Your task to perform on an android device: Open my contact list Image 0: 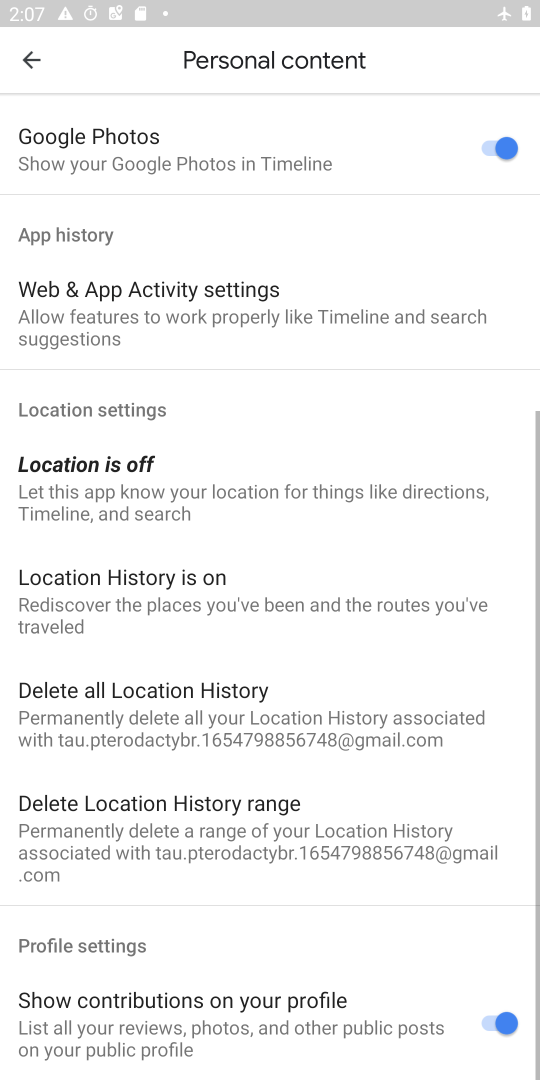
Step 0: press home button
Your task to perform on an android device: Open my contact list Image 1: 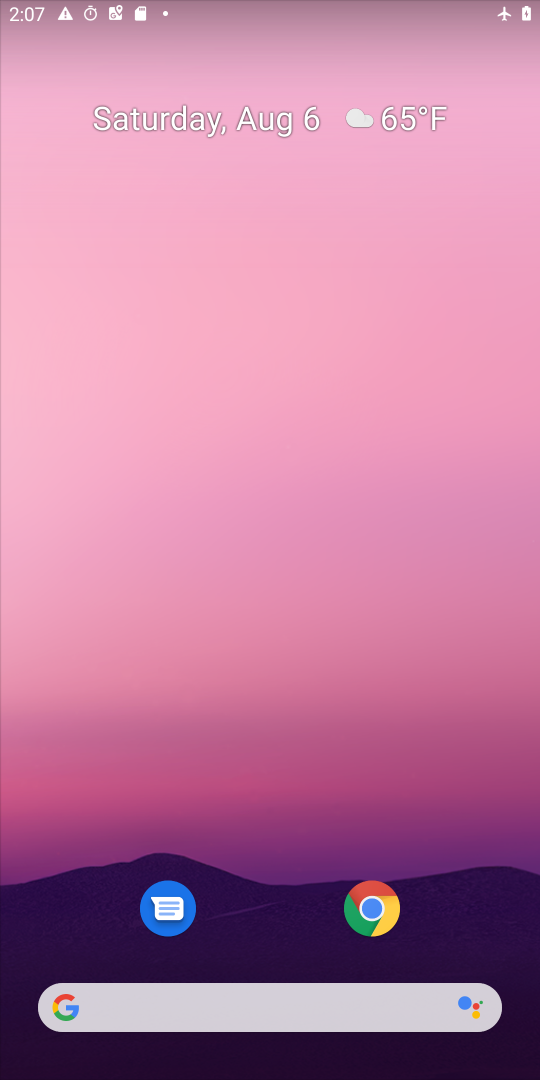
Step 1: drag from (269, 874) to (285, 9)
Your task to perform on an android device: Open my contact list Image 2: 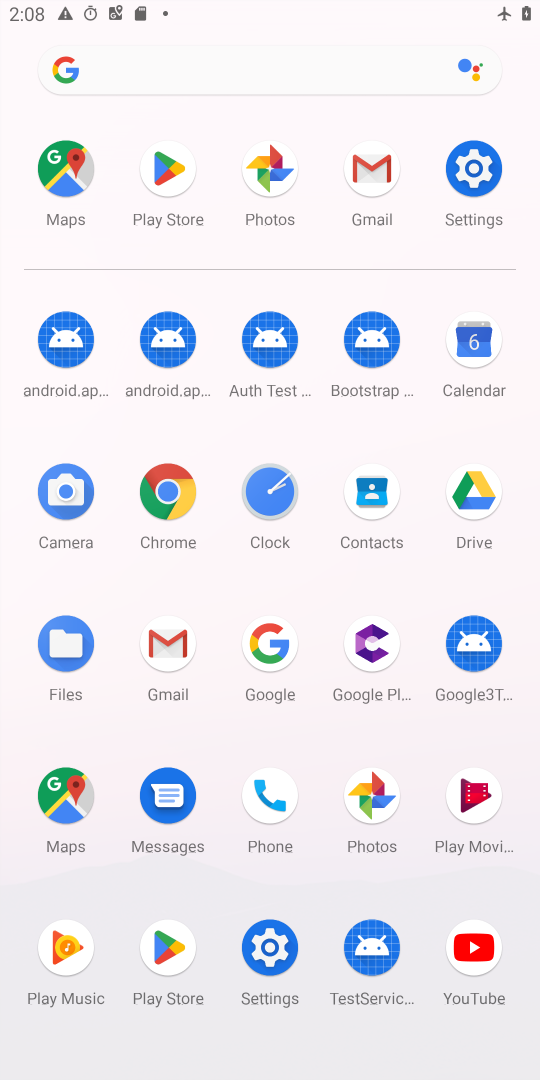
Step 2: click (369, 475)
Your task to perform on an android device: Open my contact list Image 3: 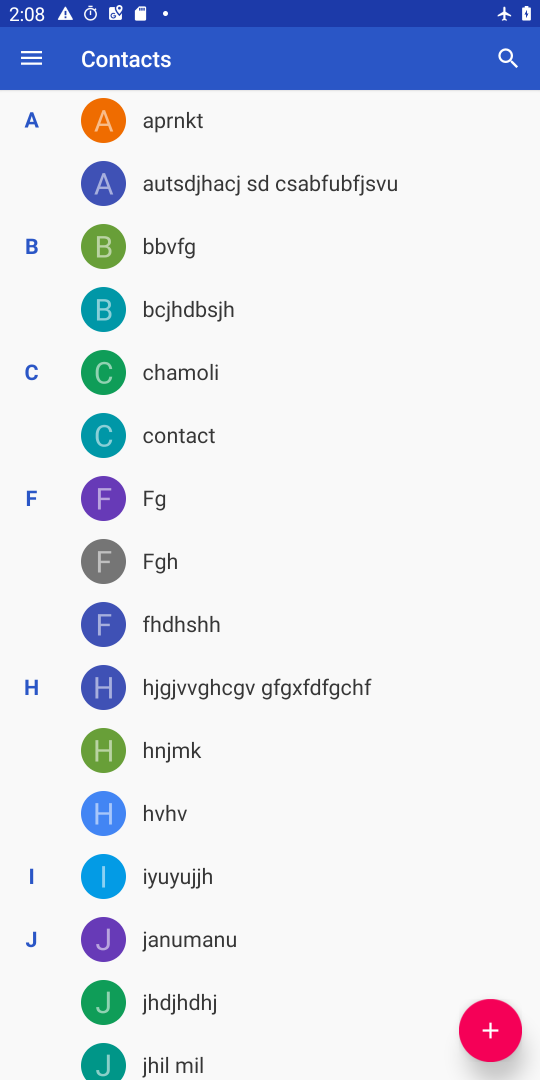
Step 3: task complete